Your task to perform on an android device: open sync settings in chrome Image 0: 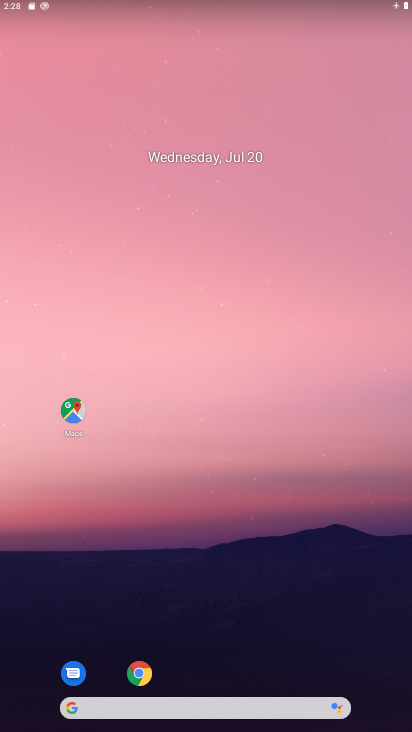
Step 0: drag from (207, 612) to (255, 127)
Your task to perform on an android device: open sync settings in chrome Image 1: 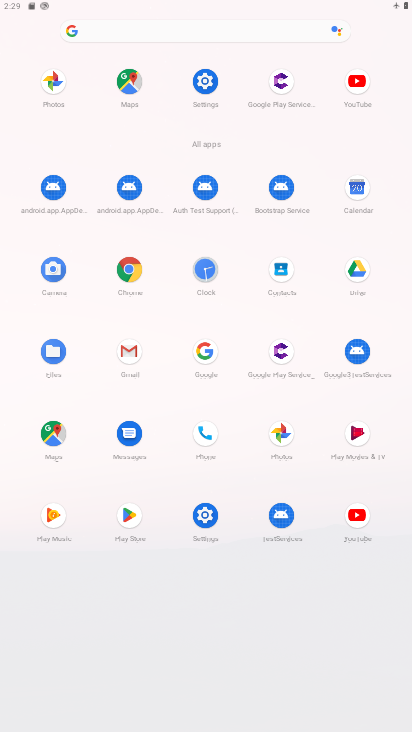
Step 1: click (131, 280)
Your task to perform on an android device: open sync settings in chrome Image 2: 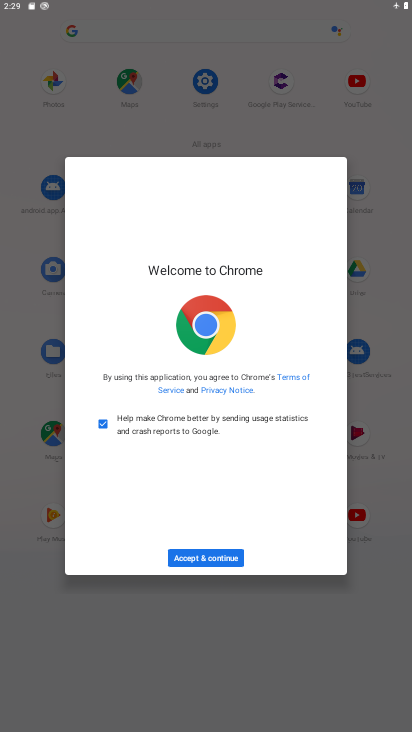
Step 2: click (227, 559)
Your task to perform on an android device: open sync settings in chrome Image 3: 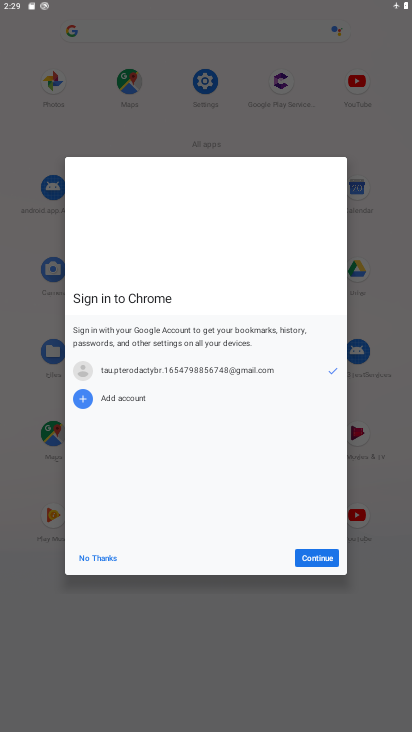
Step 3: click (307, 562)
Your task to perform on an android device: open sync settings in chrome Image 4: 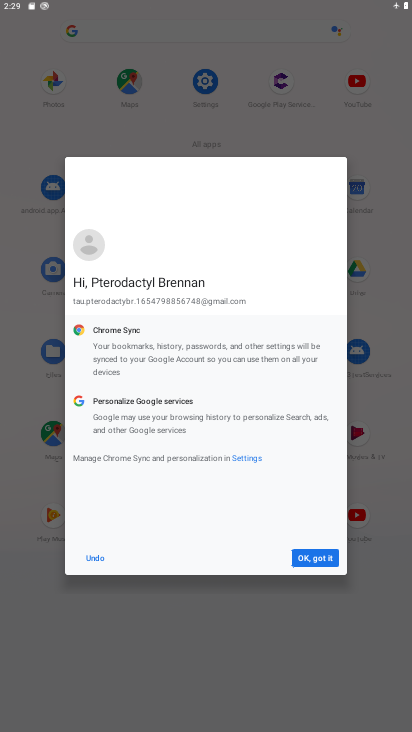
Step 4: click (307, 562)
Your task to perform on an android device: open sync settings in chrome Image 5: 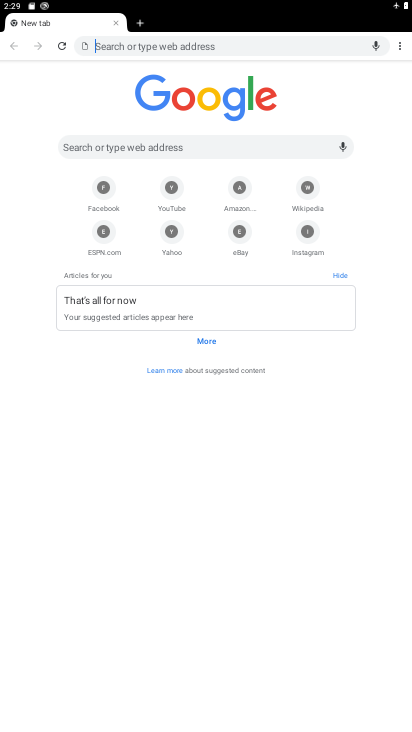
Step 5: click (400, 47)
Your task to perform on an android device: open sync settings in chrome Image 6: 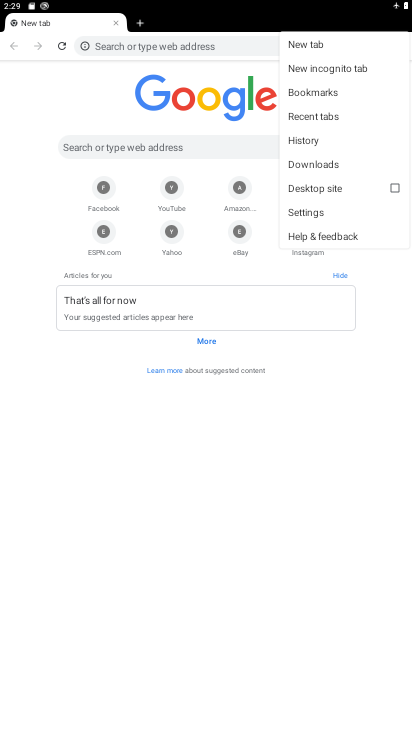
Step 6: click (302, 213)
Your task to perform on an android device: open sync settings in chrome Image 7: 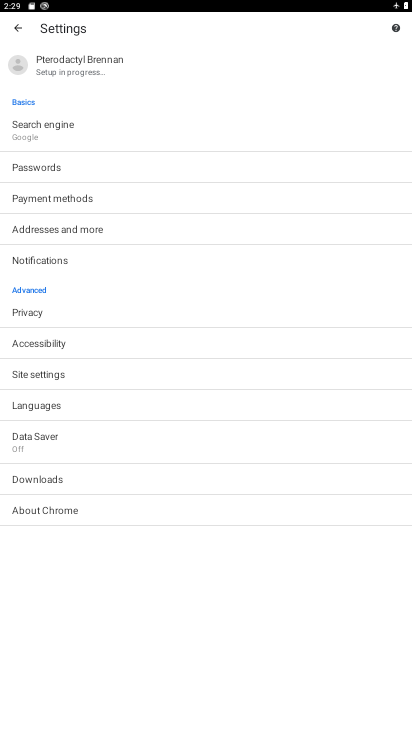
Step 7: click (98, 72)
Your task to perform on an android device: open sync settings in chrome Image 8: 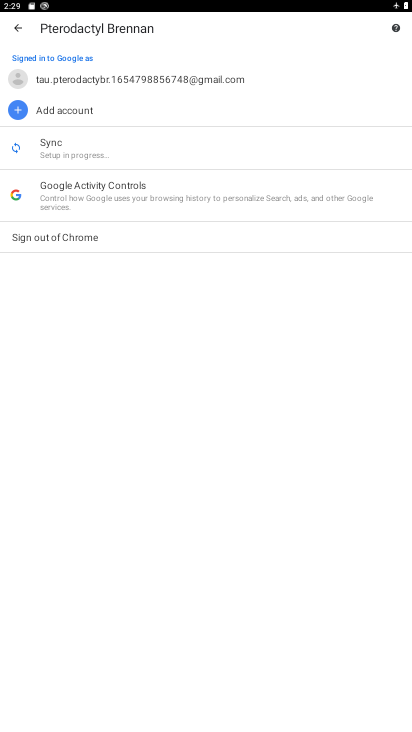
Step 8: click (104, 156)
Your task to perform on an android device: open sync settings in chrome Image 9: 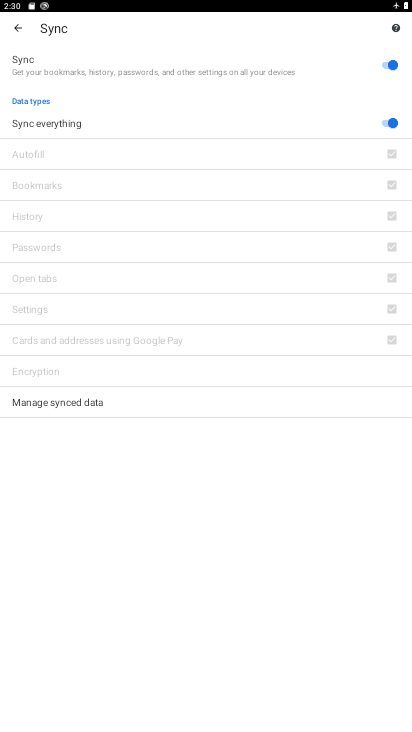
Step 9: task complete